Your task to perform on an android device: change the clock display to digital Image 0: 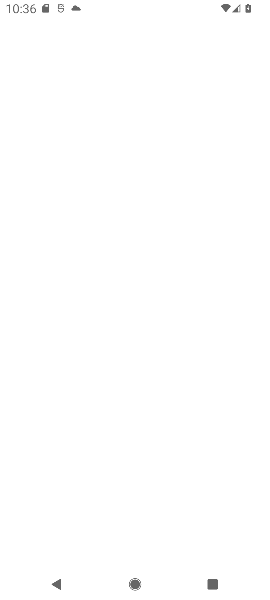
Step 0: press home button
Your task to perform on an android device: change the clock display to digital Image 1: 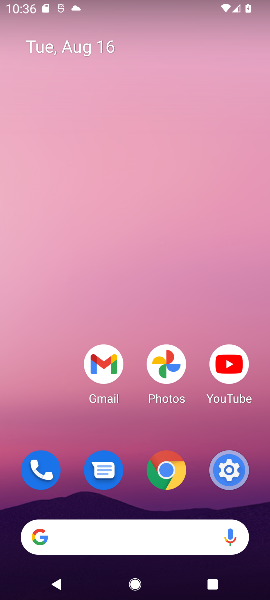
Step 1: drag from (51, 395) to (112, 32)
Your task to perform on an android device: change the clock display to digital Image 2: 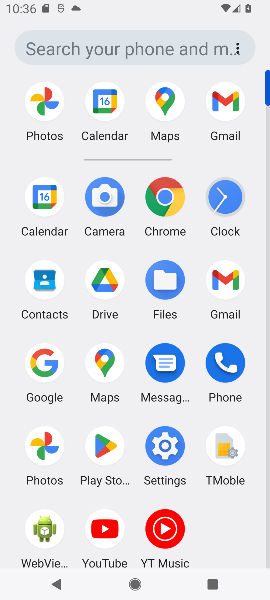
Step 2: click (230, 192)
Your task to perform on an android device: change the clock display to digital Image 3: 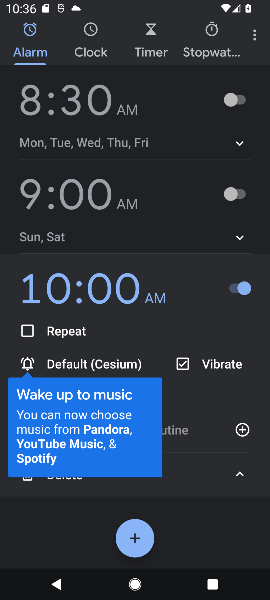
Step 3: click (96, 41)
Your task to perform on an android device: change the clock display to digital Image 4: 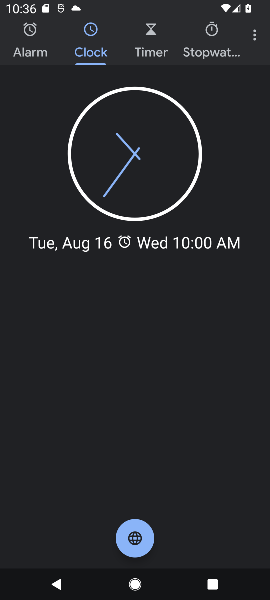
Step 4: click (253, 32)
Your task to perform on an android device: change the clock display to digital Image 5: 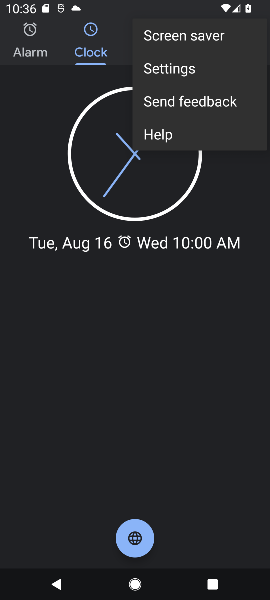
Step 5: click (206, 68)
Your task to perform on an android device: change the clock display to digital Image 6: 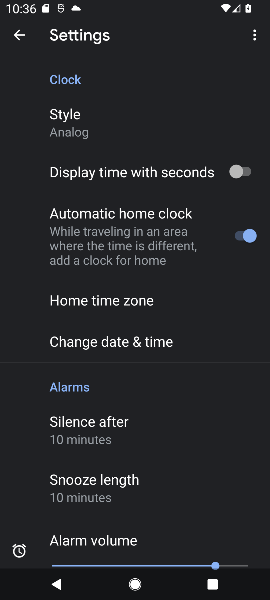
Step 6: click (79, 117)
Your task to perform on an android device: change the clock display to digital Image 7: 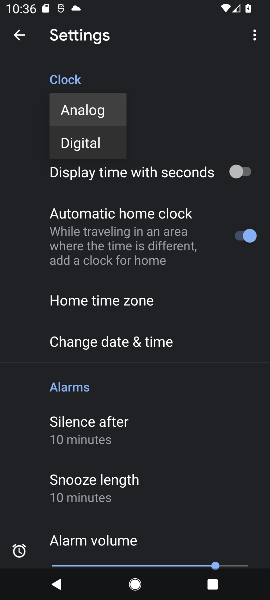
Step 7: click (90, 142)
Your task to perform on an android device: change the clock display to digital Image 8: 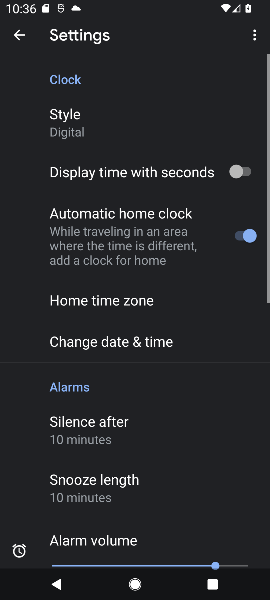
Step 8: click (20, 34)
Your task to perform on an android device: change the clock display to digital Image 9: 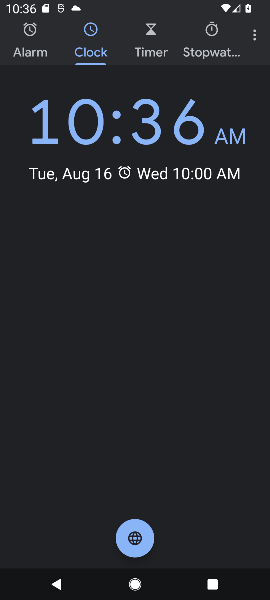
Step 9: task complete